Your task to perform on an android device: delete a single message in the gmail app Image 0: 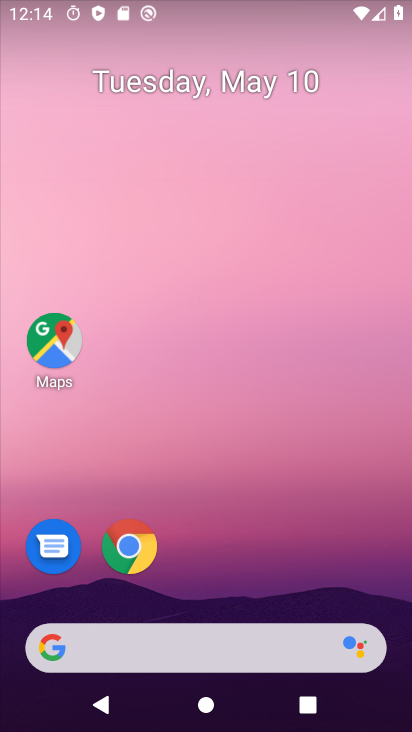
Step 0: press home button
Your task to perform on an android device: delete a single message in the gmail app Image 1: 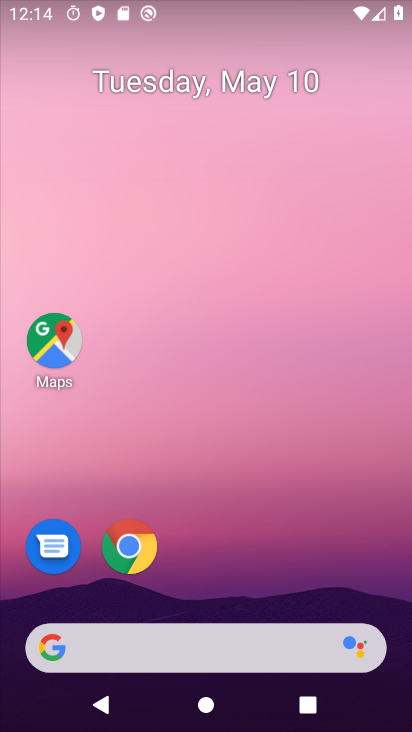
Step 1: drag from (238, 571) to (303, 77)
Your task to perform on an android device: delete a single message in the gmail app Image 2: 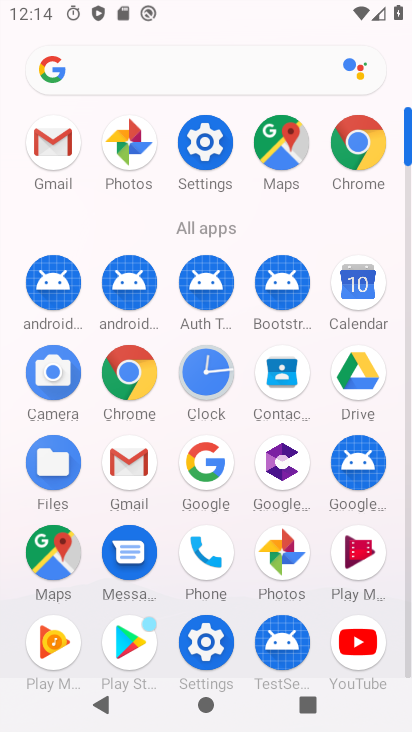
Step 2: click (44, 161)
Your task to perform on an android device: delete a single message in the gmail app Image 3: 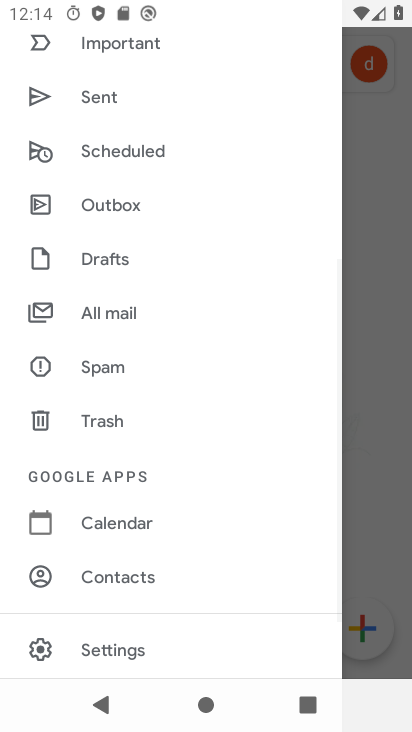
Step 3: task complete